Your task to perform on an android device: Show me the alarms in the clock app Image 0: 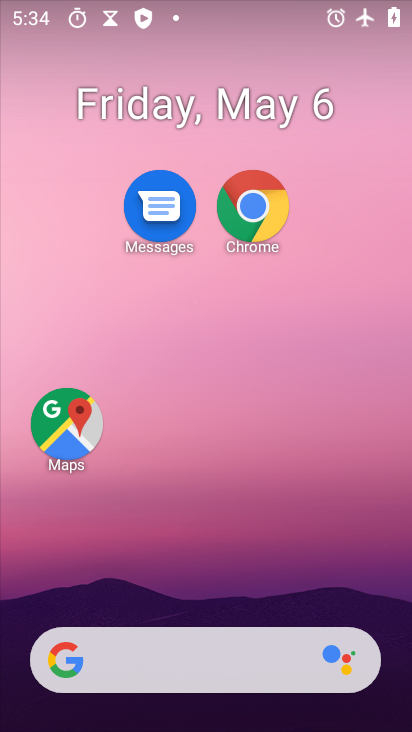
Step 0: drag from (216, 592) to (216, 279)
Your task to perform on an android device: Show me the alarms in the clock app Image 1: 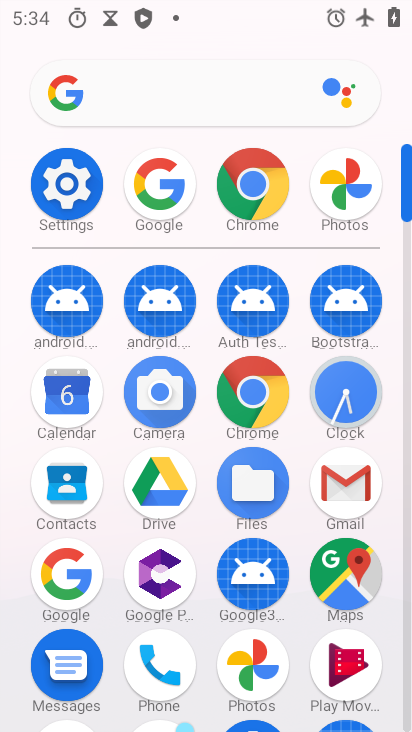
Step 1: click (324, 404)
Your task to perform on an android device: Show me the alarms in the clock app Image 2: 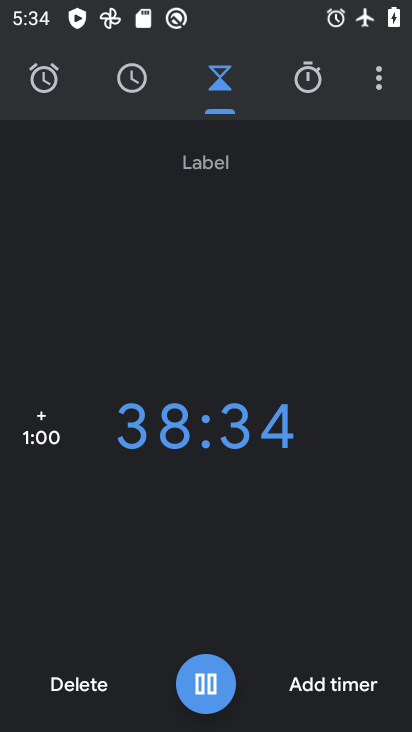
Step 2: click (41, 79)
Your task to perform on an android device: Show me the alarms in the clock app Image 3: 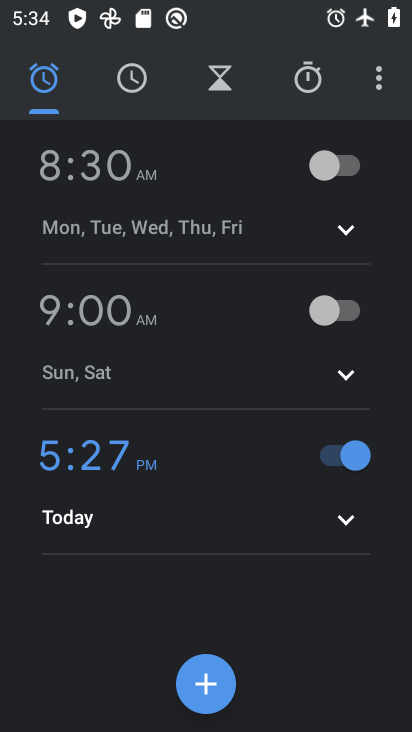
Step 3: task complete